Your task to perform on an android device: check storage Image 0: 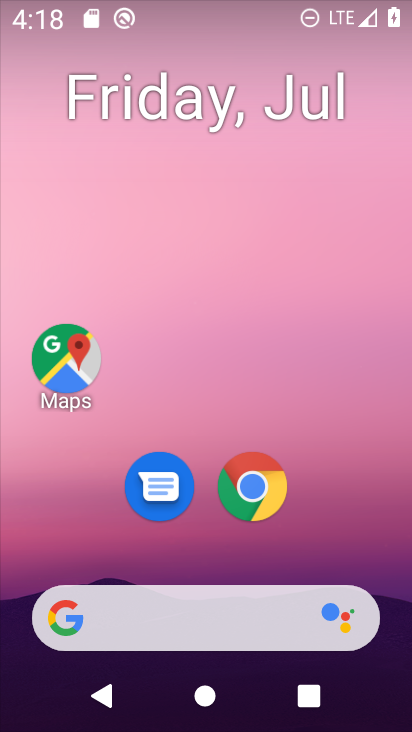
Step 0: drag from (181, 558) to (270, 45)
Your task to perform on an android device: check storage Image 1: 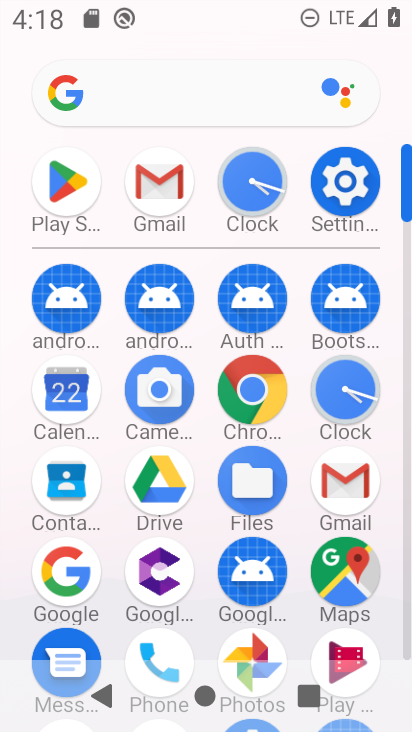
Step 1: click (335, 178)
Your task to perform on an android device: check storage Image 2: 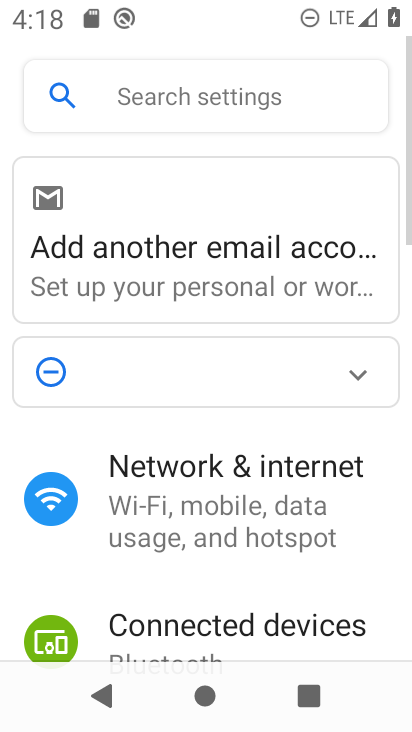
Step 2: drag from (207, 595) to (271, 61)
Your task to perform on an android device: check storage Image 3: 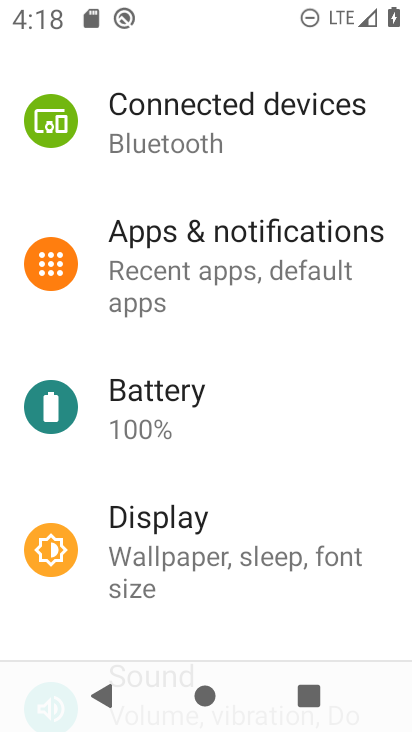
Step 3: drag from (176, 552) to (292, 114)
Your task to perform on an android device: check storage Image 4: 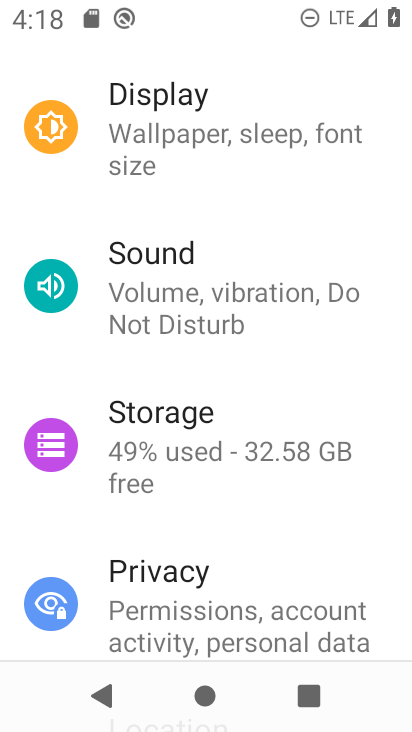
Step 4: click (157, 443)
Your task to perform on an android device: check storage Image 5: 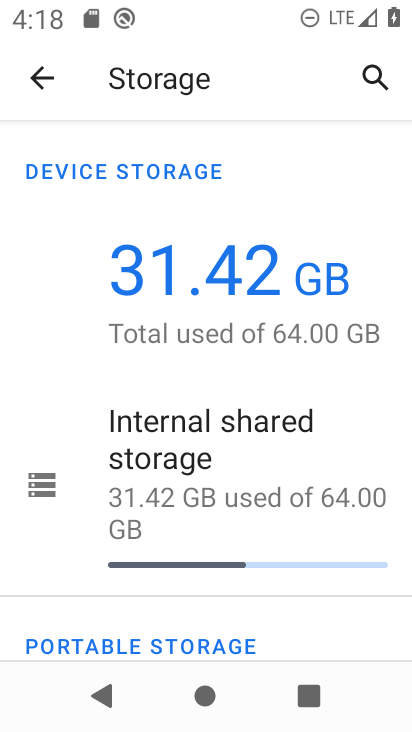
Step 5: task complete